Your task to perform on an android device: Go to Maps Image 0: 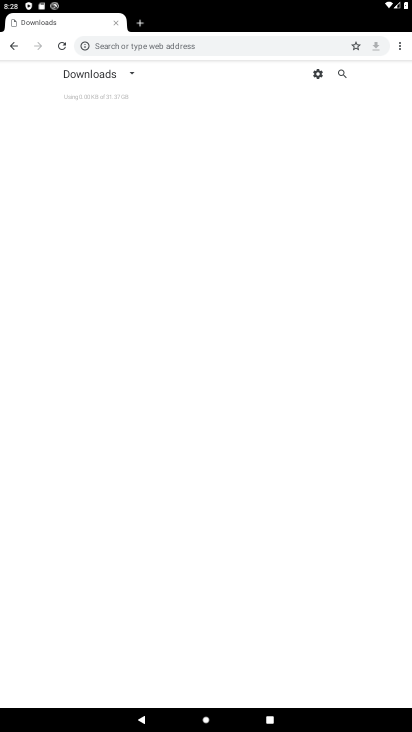
Step 0: press home button
Your task to perform on an android device: Go to Maps Image 1: 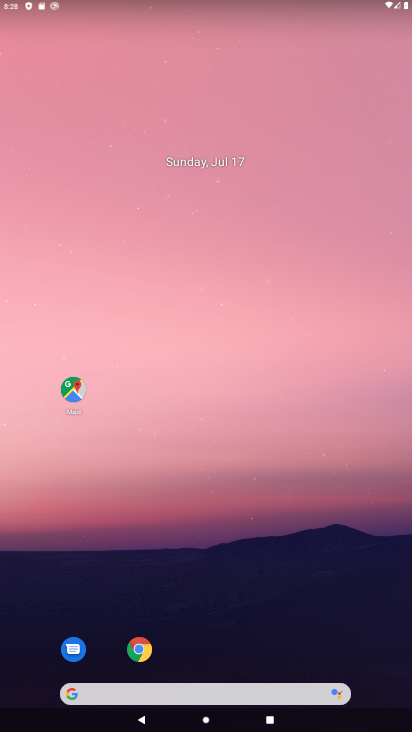
Step 1: click (65, 392)
Your task to perform on an android device: Go to Maps Image 2: 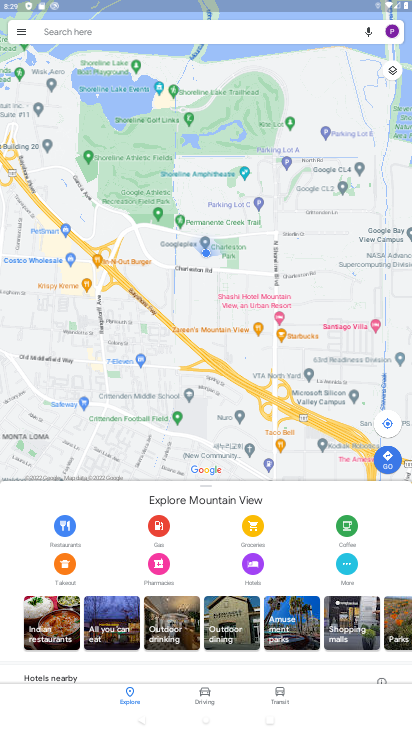
Step 2: task complete